Your task to perform on an android device: When is my next appointment? Image 0: 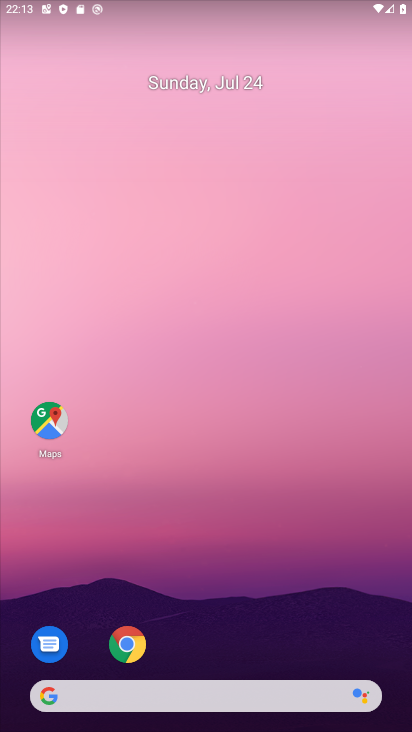
Step 0: drag from (275, 637) to (274, 38)
Your task to perform on an android device: When is my next appointment? Image 1: 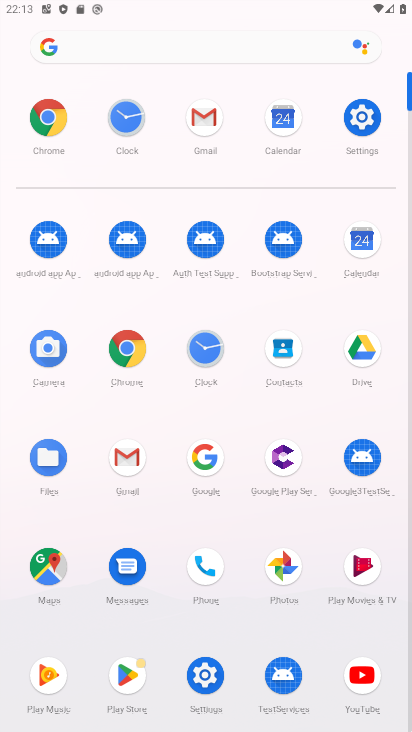
Step 1: click (362, 238)
Your task to perform on an android device: When is my next appointment? Image 2: 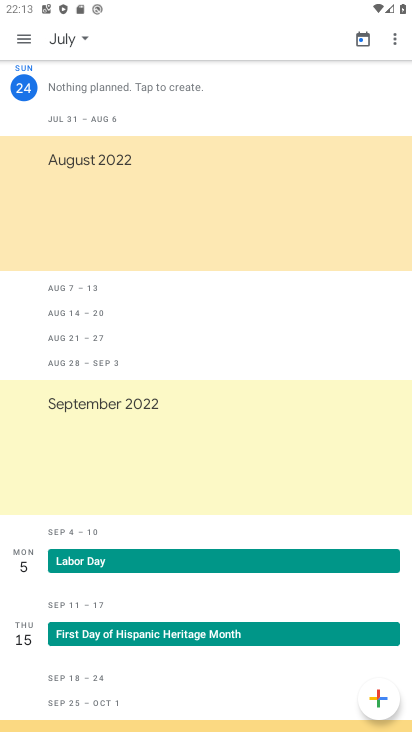
Step 2: task complete